Your task to perform on an android device: open app "TextNow: Call + Text Unlimited" (install if not already installed) Image 0: 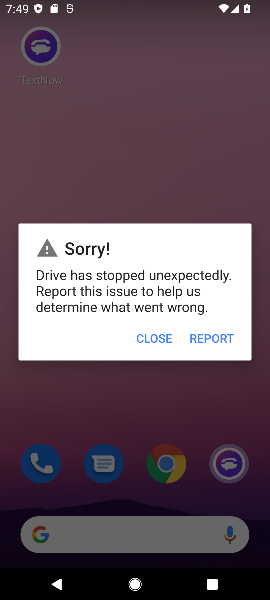
Step 0: press home button
Your task to perform on an android device: open app "TextNow: Call + Text Unlimited" (install if not already installed) Image 1: 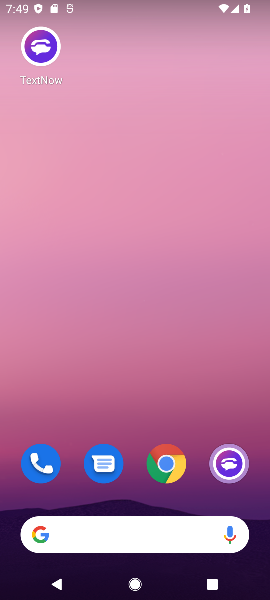
Step 1: drag from (110, 488) to (149, 56)
Your task to perform on an android device: open app "TextNow: Call + Text Unlimited" (install if not already installed) Image 2: 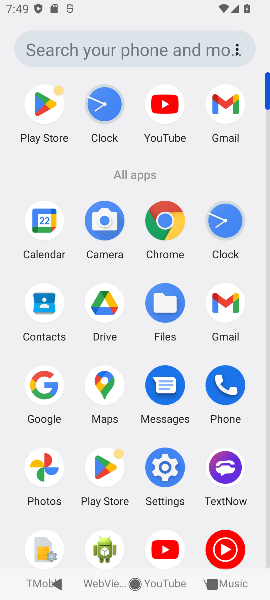
Step 2: click (38, 109)
Your task to perform on an android device: open app "TextNow: Call + Text Unlimited" (install if not already installed) Image 3: 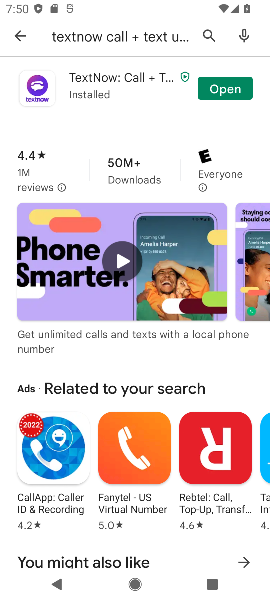
Step 3: click (18, 36)
Your task to perform on an android device: open app "TextNow: Call + Text Unlimited" (install if not already installed) Image 4: 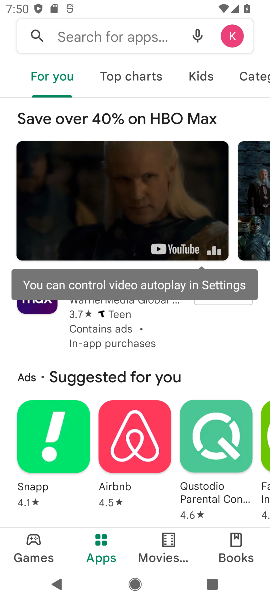
Step 4: click (70, 36)
Your task to perform on an android device: open app "TextNow: Call + Text Unlimited" (install if not already installed) Image 5: 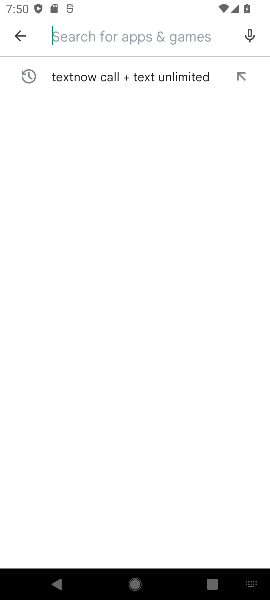
Step 5: type "TextNow: Call + Text Unlimited"
Your task to perform on an android device: open app "TextNow: Call + Text Unlimited" (install if not already installed) Image 6: 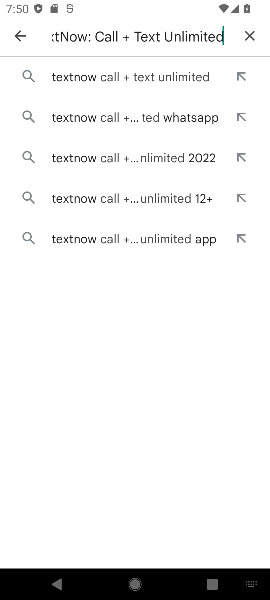
Step 6: click (144, 80)
Your task to perform on an android device: open app "TextNow: Call + Text Unlimited" (install if not already installed) Image 7: 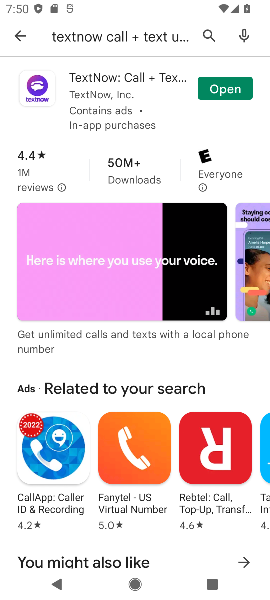
Step 7: click (225, 96)
Your task to perform on an android device: open app "TextNow: Call + Text Unlimited" (install if not already installed) Image 8: 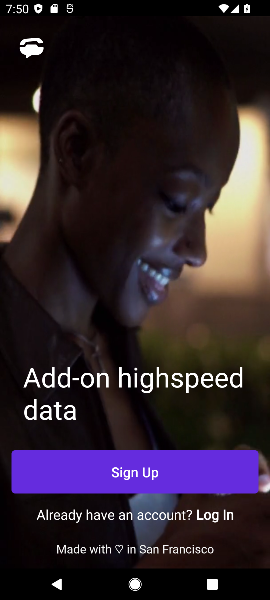
Step 8: task complete